Your task to perform on an android device: see creations saved in the google photos Image 0: 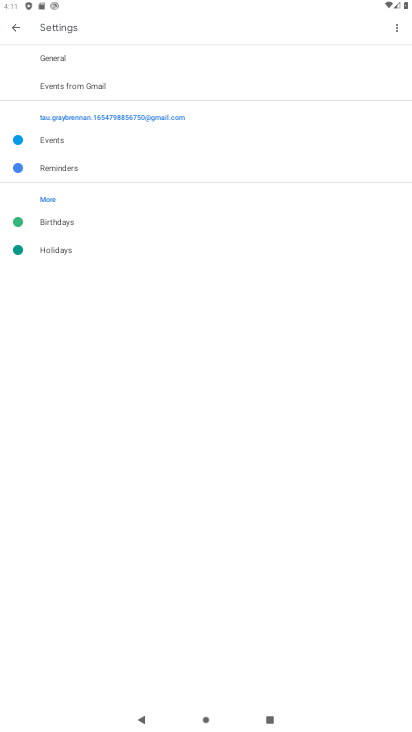
Step 0: press home button
Your task to perform on an android device: see creations saved in the google photos Image 1: 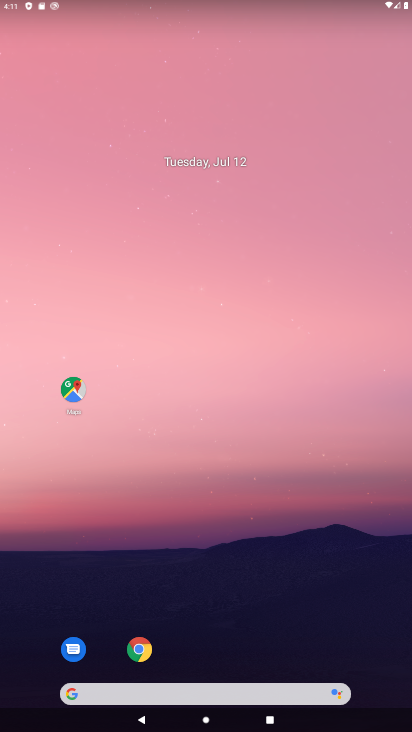
Step 1: drag from (190, 698) to (279, 268)
Your task to perform on an android device: see creations saved in the google photos Image 2: 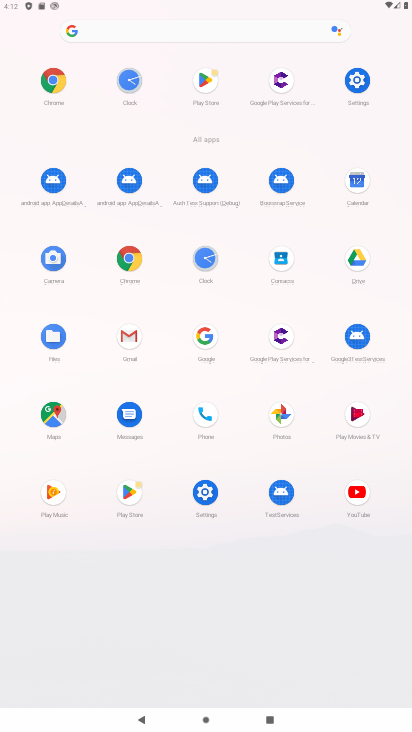
Step 2: click (281, 415)
Your task to perform on an android device: see creations saved in the google photos Image 3: 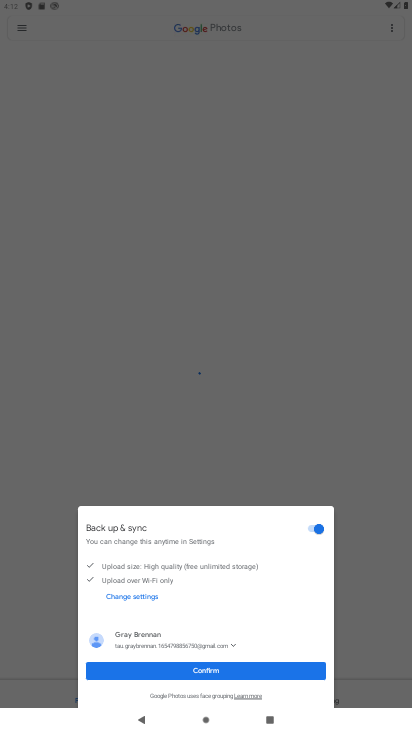
Step 3: click (165, 670)
Your task to perform on an android device: see creations saved in the google photos Image 4: 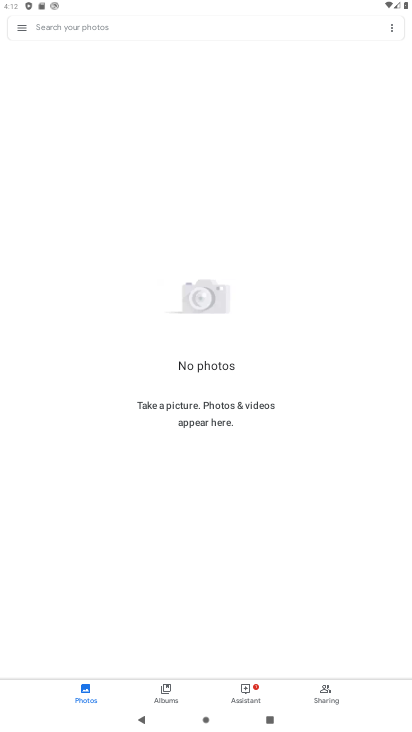
Step 4: click (176, 702)
Your task to perform on an android device: see creations saved in the google photos Image 5: 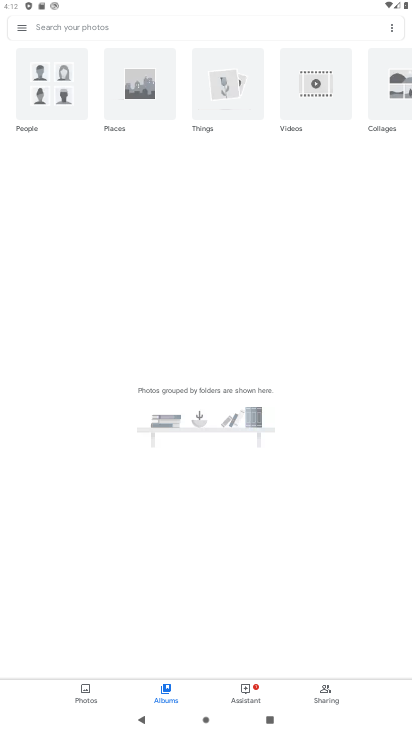
Step 5: click (251, 687)
Your task to perform on an android device: see creations saved in the google photos Image 6: 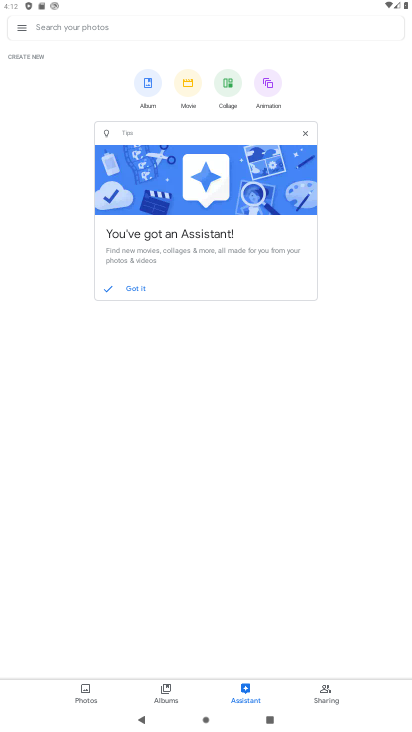
Step 6: click (328, 691)
Your task to perform on an android device: see creations saved in the google photos Image 7: 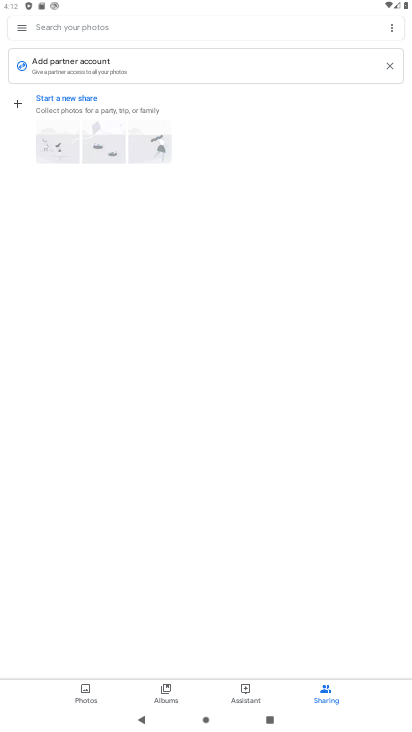
Step 7: click (93, 696)
Your task to perform on an android device: see creations saved in the google photos Image 8: 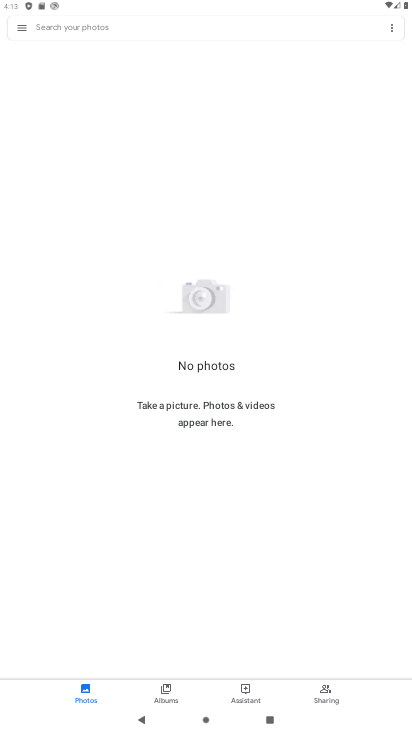
Step 8: click (20, 29)
Your task to perform on an android device: see creations saved in the google photos Image 9: 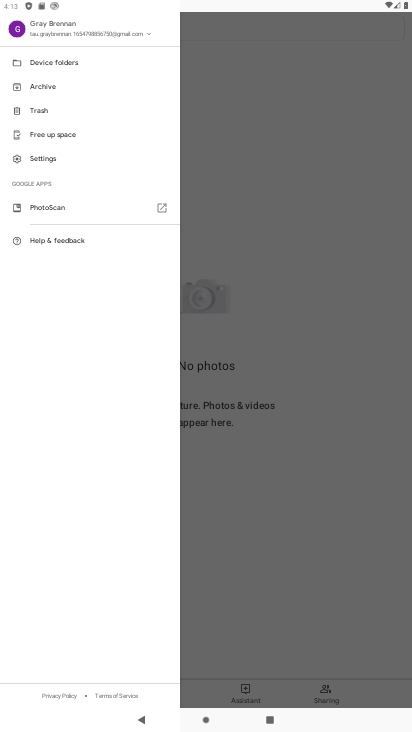
Step 9: click (34, 159)
Your task to perform on an android device: see creations saved in the google photos Image 10: 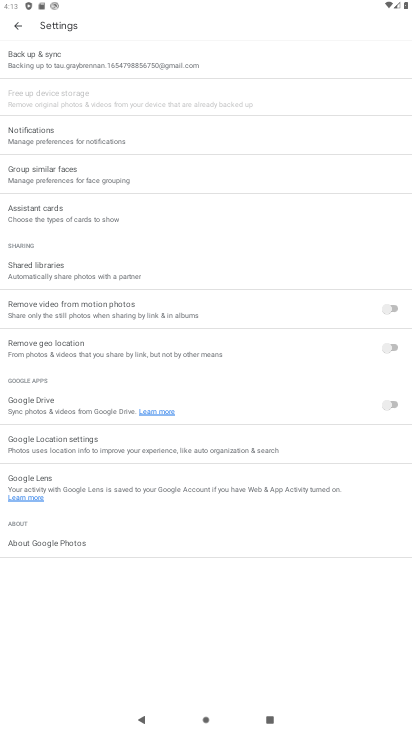
Step 10: click (15, 26)
Your task to perform on an android device: see creations saved in the google photos Image 11: 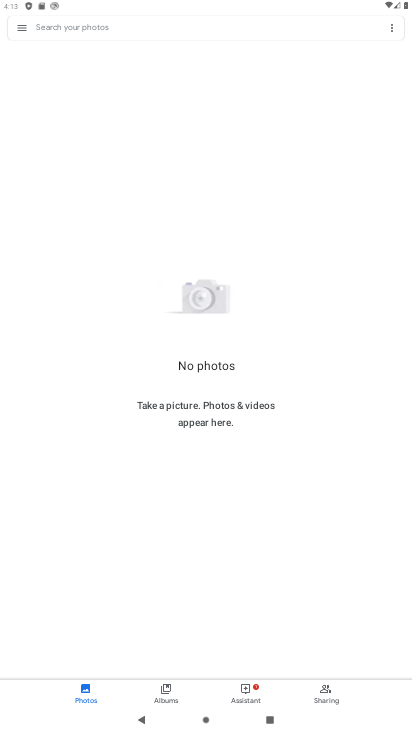
Step 11: click (110, 23)
Your task to perform on an android device: see creations saved in the google photos Image 12: 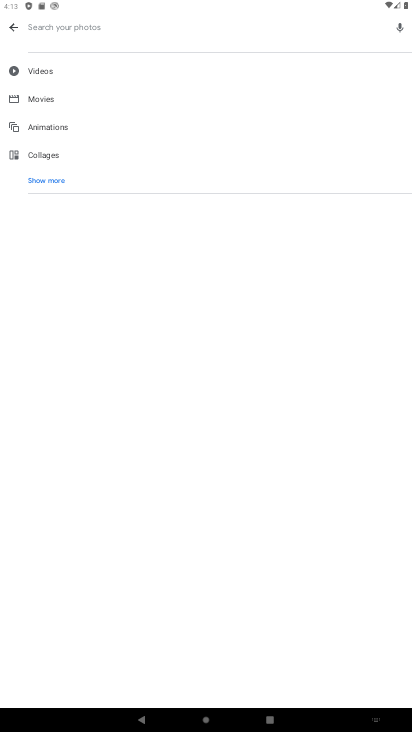
Step 12: click (38, 178)
Your task to perform on an android device: see creations saved in the google photos Image 13: 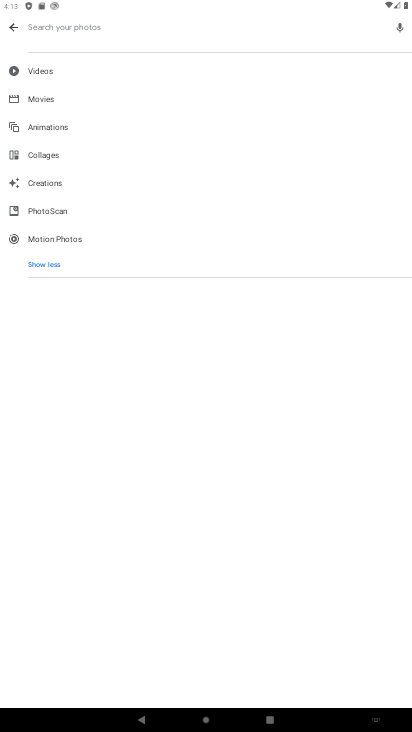
Step 13: click (38, 179)
Your task to perform on an android device: see creations saved in the google photos Image 14: 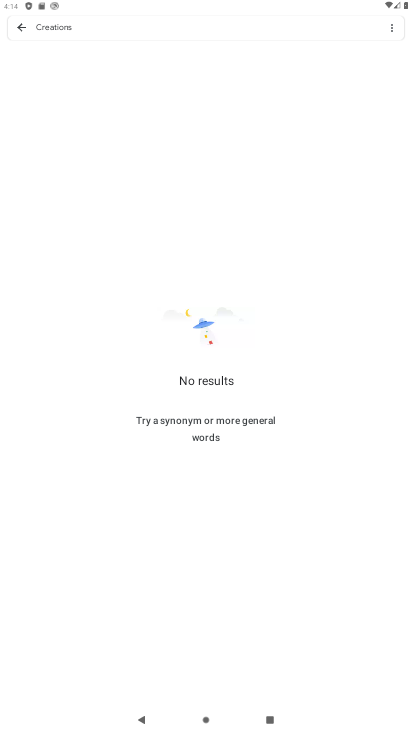
Step 14: task complete